Your task to perform on an android device: turn off priority inbox in the gmail app Image 0: 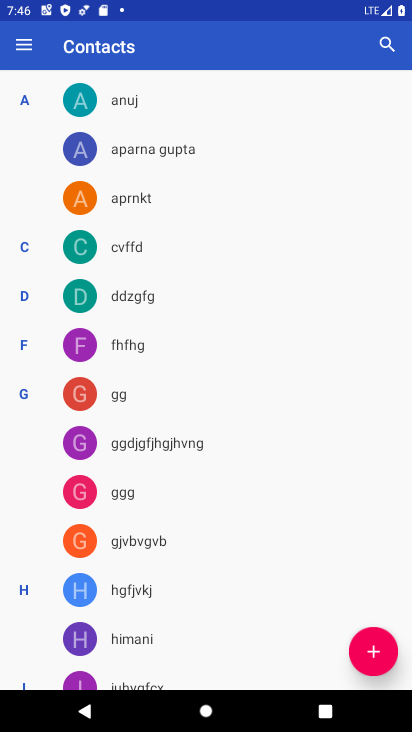
Step 0: press home button
Your task to perform on an android device: turn off priority inbox in the gmail app Image 1: 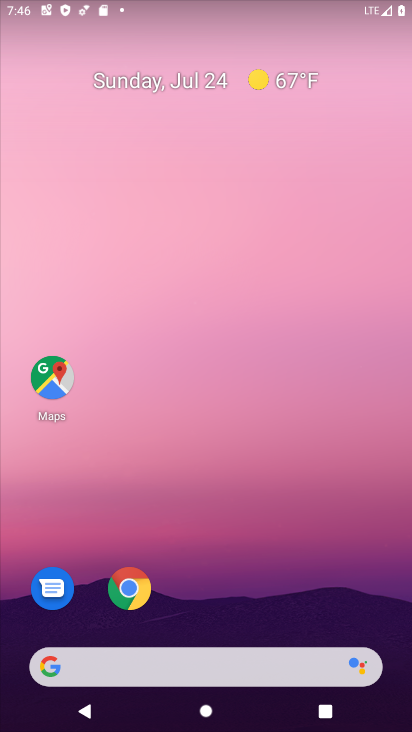
Step 1: drag from (233, 595) to (214, 190)
Your task to perform on an android device: turn off priority inbox in the gmail app Image 2: 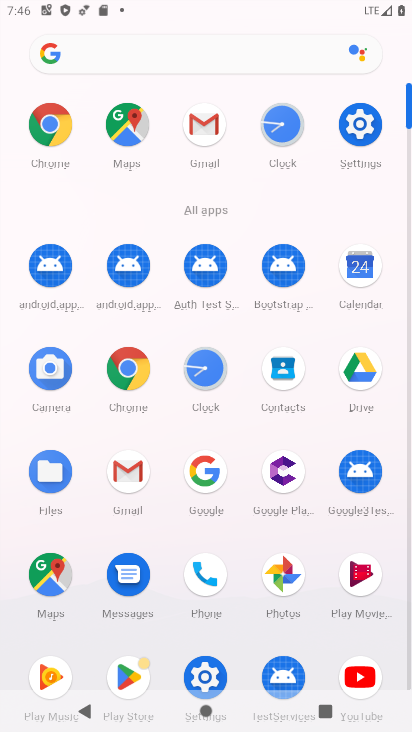
Step 2: click (209, 114)
Your task to perform on an android device: turn off priority inbox in the gmail app Image 3: 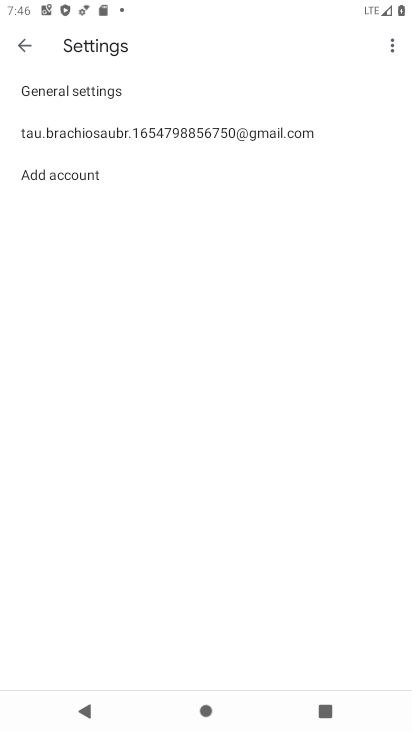
Step 3: click (65, 93)
Your task to perform on an android device: turn off priority inbox in the gmail app Image 4: 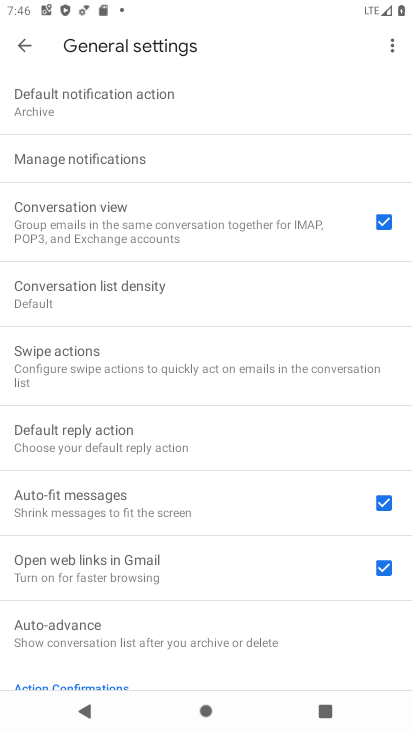
Step 4: click (11, 47)
Your task to perform on an android device: turn off priority inbox in the gmail app Image 5: 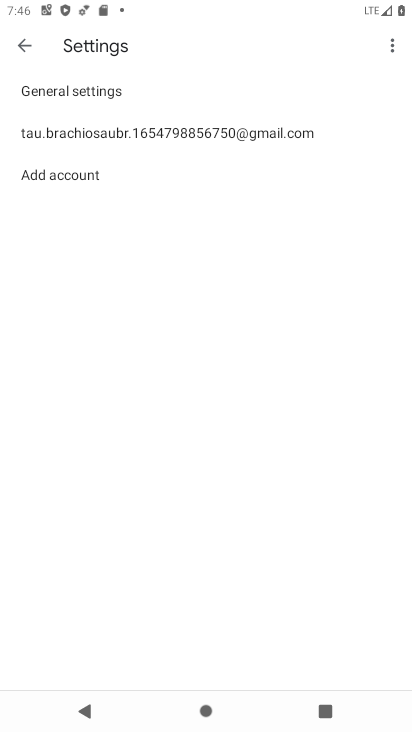
Step 5: click (76, 137)
Your task to perform on an android device: turn off priority inbox in the gmail app Image 6: 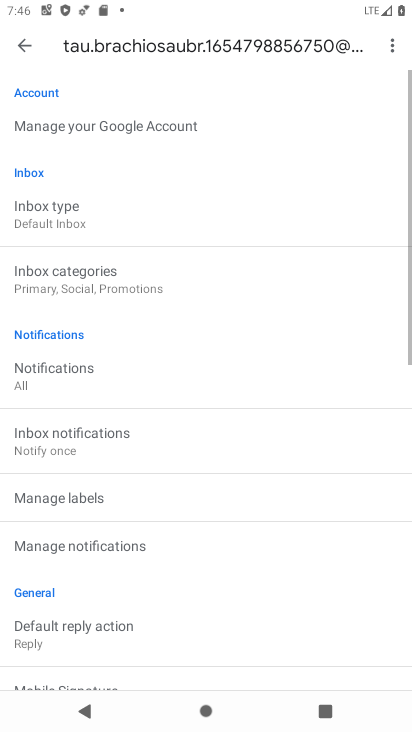
Step 6: click (42, 208)
Your task to perform on an android device: turn off priority inbox in the gmail app Image 7: 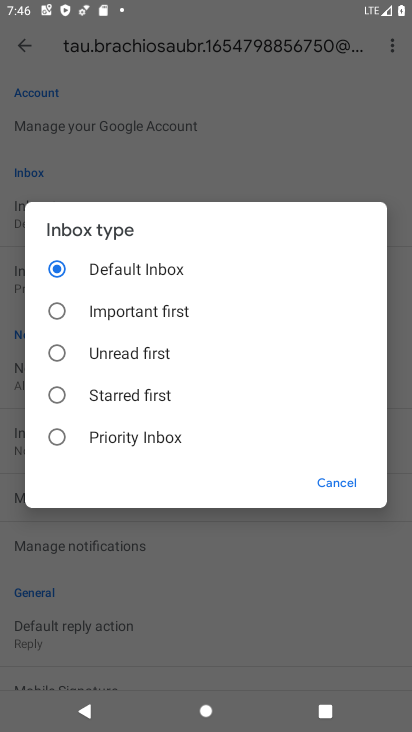
Step 7: click (109, 445)
Your task to perform on an android device: turn off priority inbox in the gmail app Image 8: 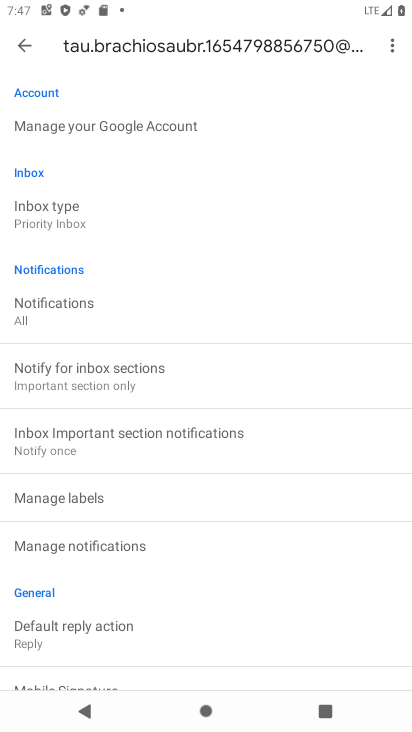
Step 8: task complete